Your task to perform on an android device: Is it going to rain this weekend? Image 0: 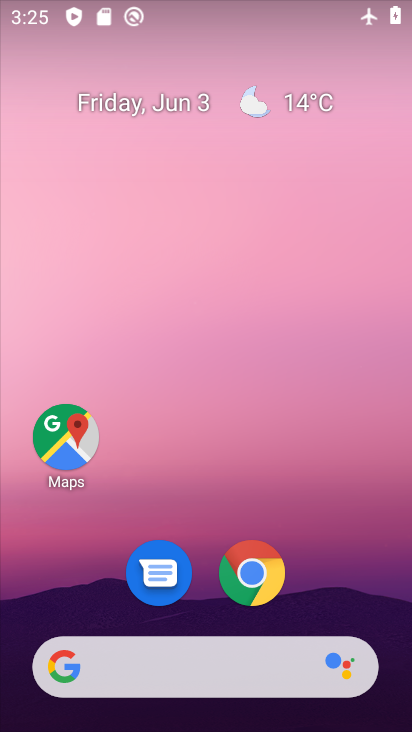
Step 0: drag from (297, 495) to (289, 147)
Your task to perform on an android device: Is it going to rain this weekend? Image 1: 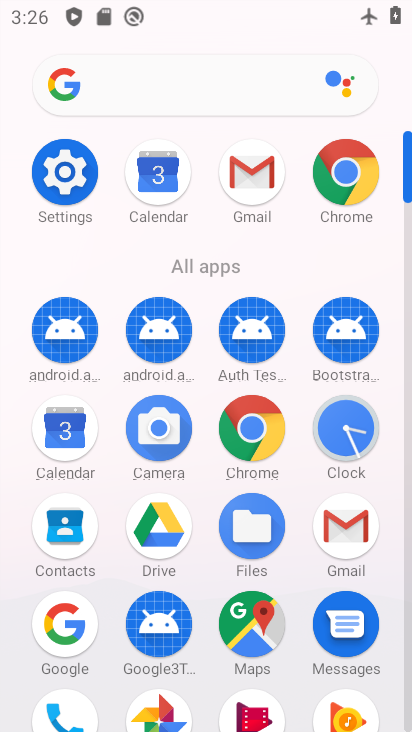
Step 1: drag from (222, 480) to (187, 308)
Your task to perform on an android device: Is it going to rain this weekend? Image 2: 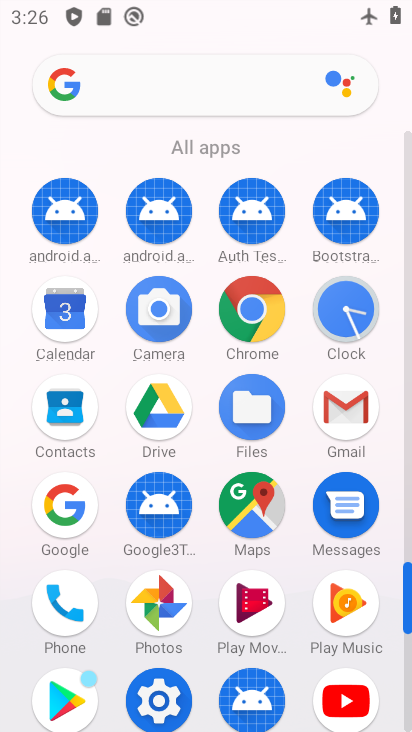
Step 2: click (58, 507)
Your task to perform on an android device: Is it going to rain this weekend? Image 3: 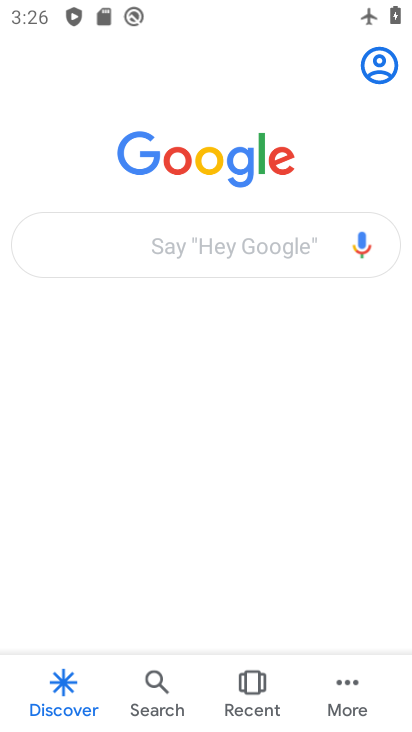
Step 3: click (149, 238)
Your task to perform on an android device: Is it going to rain this weekend? Image 4: 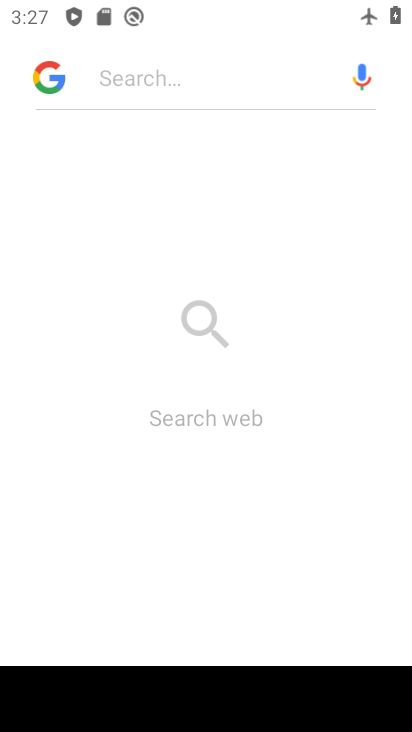
Step 4: type "wether"
Your task to perform on an android device: Is it going to rain this weekend? Image 5: 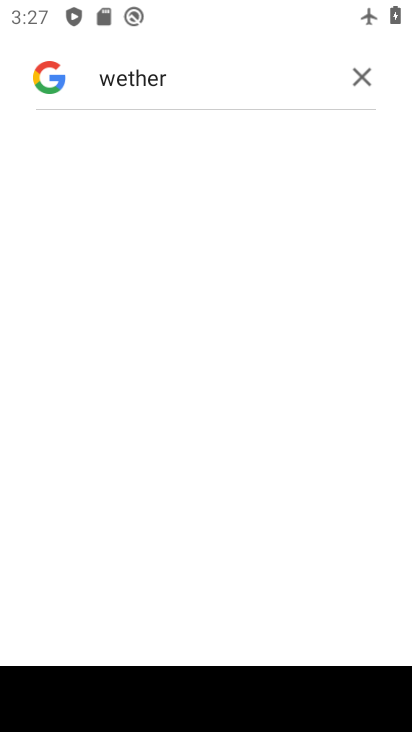
Step 5: task complete